Your task to perform on an android device: open sync settings in chrome Image 0: 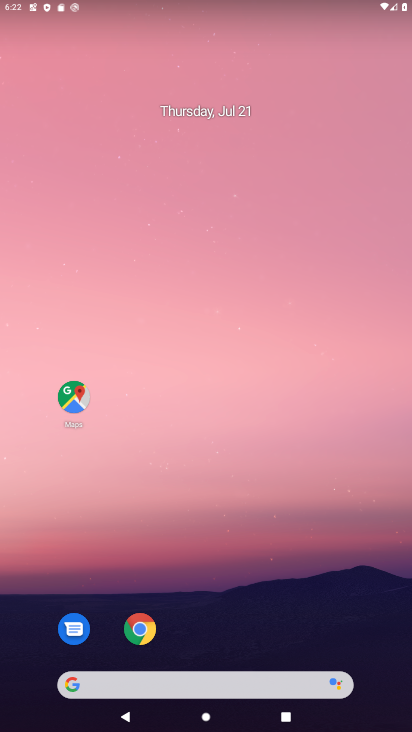
Step 0: click (140, 628)
Your task to perform on an android device: open sync settings in chrome Image 1: 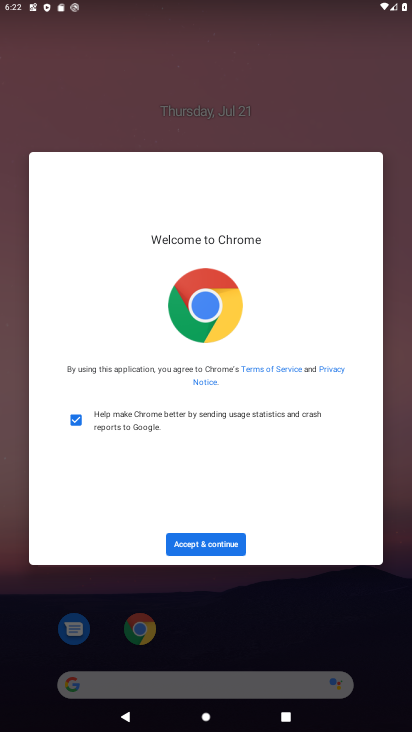
Step 1: click (198, 541)
Your task to perform on an android device: open sync settings in chrome Image 2: 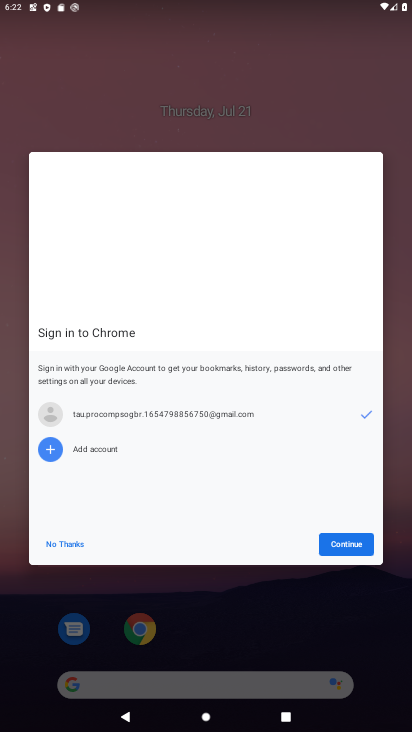
Step 2: click (344, 544)
Your task to perform on an android device: open sync settings in chrome Image 3: 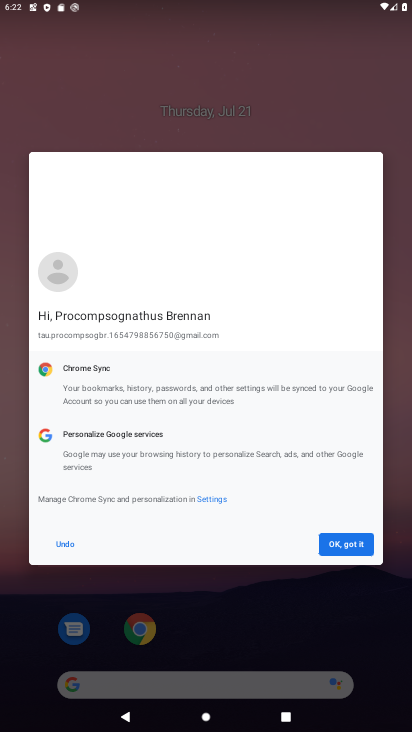
Step 3: click (344, 544)
Your task to perform on an android device: open sync settings in chrome Image 4: 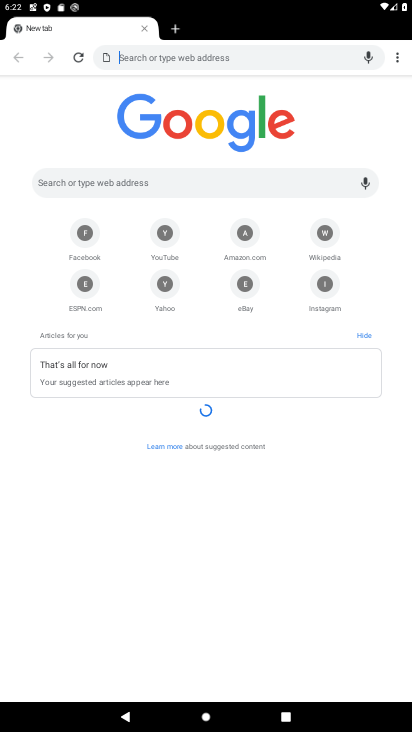
Step 4: click (395, 54)
Your task to perform on an android device: open sync settings in chrome Image 5: 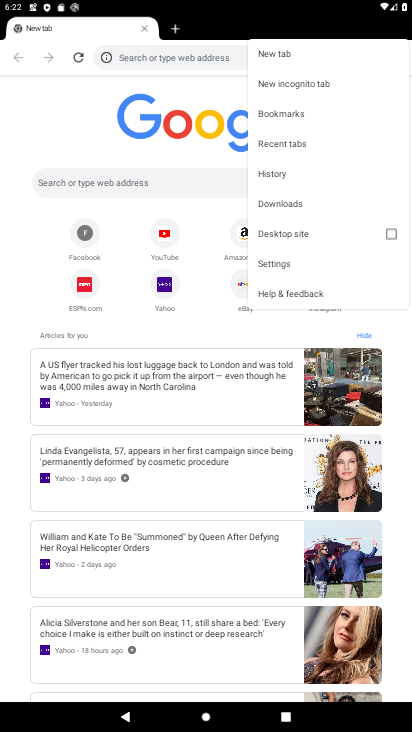
Step 5: click (274, 260)
Your task to perform on an android device: open sync settings in chrome Image 6: 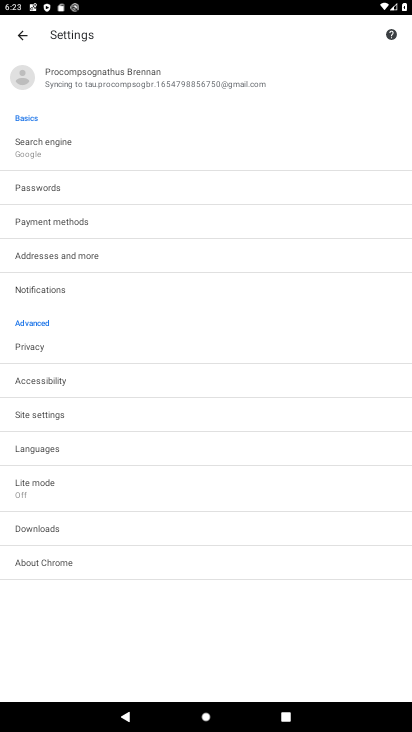
Step 6: click (37, 410)
Your task to perform on an android device: open sync settings in chrome Image 7: 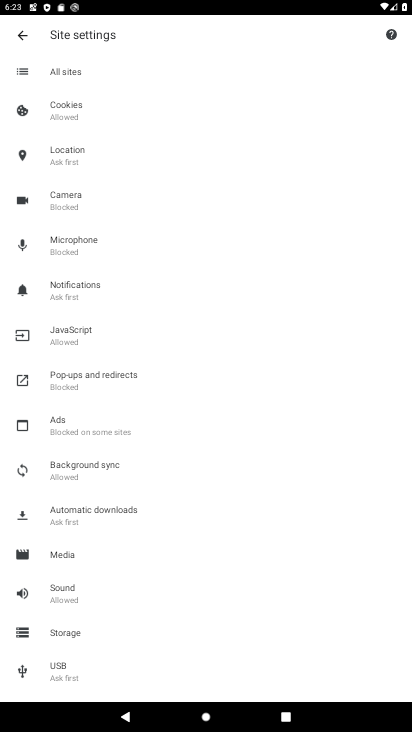
Step 7: click (74, 465)
Your task to perform on an android device: open sync settings in chrome Image 8: 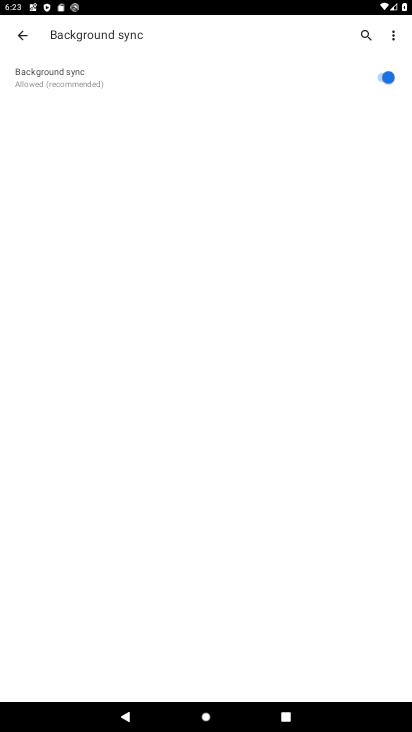
Step 8: task complete